Your task to perform on an android device: Open Google Maps Image 0: 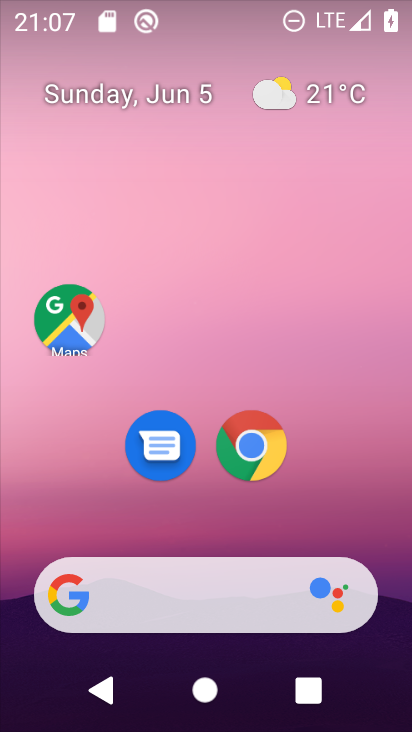
Step 0: click (61, 315)
Your task to perform on an android device: Open Google Maps Image 1: 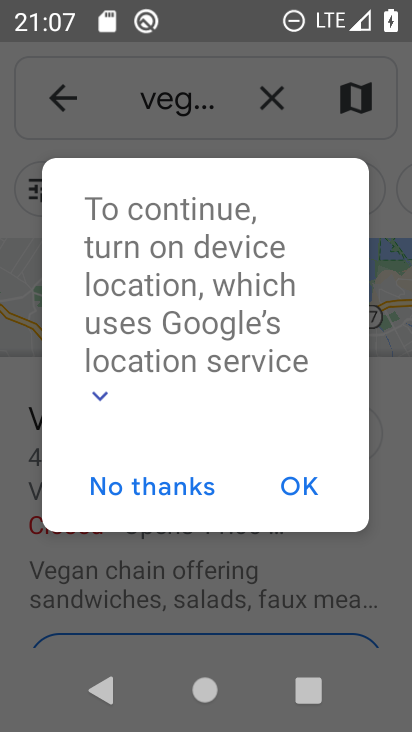
Step 1: click (139, 485)
Your task to perform on an android device: Open Google Maps Image 2: 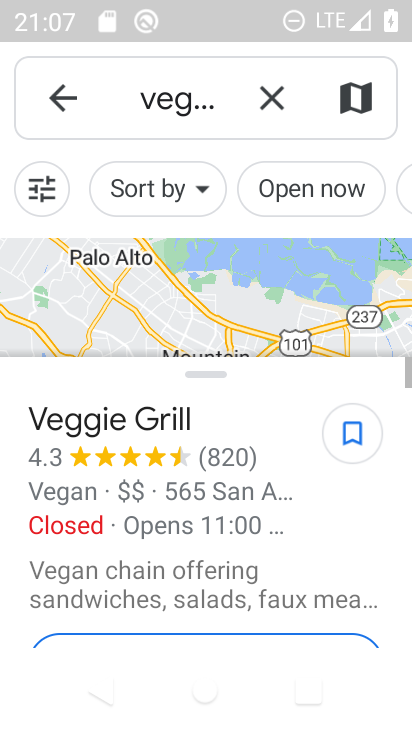
Step 2: click (280, 88)
Your task to perform on an android device: Open Google Maps Image 3: 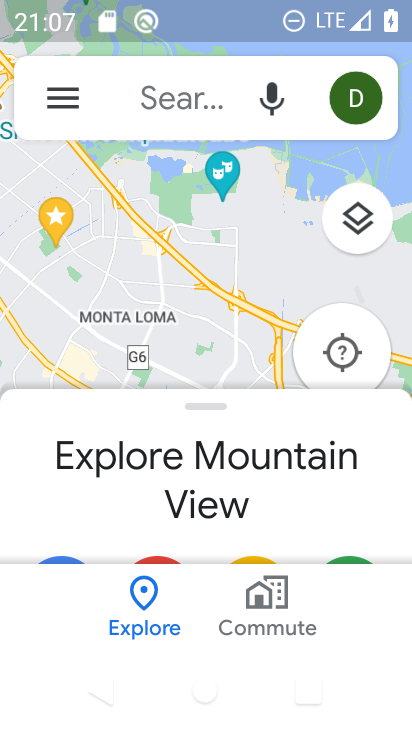
Step 3: task complete